Your task to perform on an android device: Go to network settings Image 0: 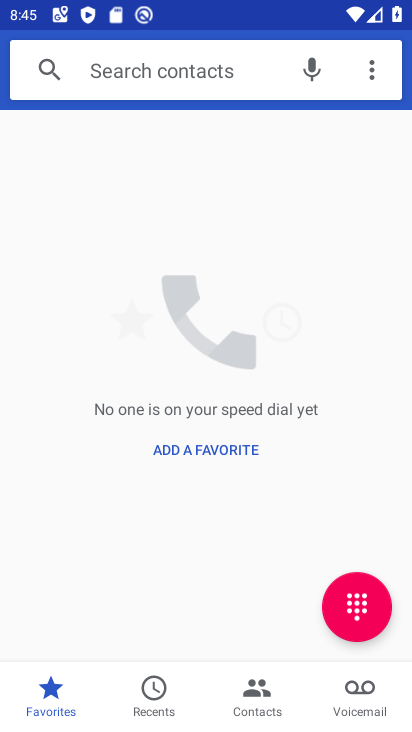
Step 0: press home button
Your task to perform on an android device: Go to network settings Image 1: 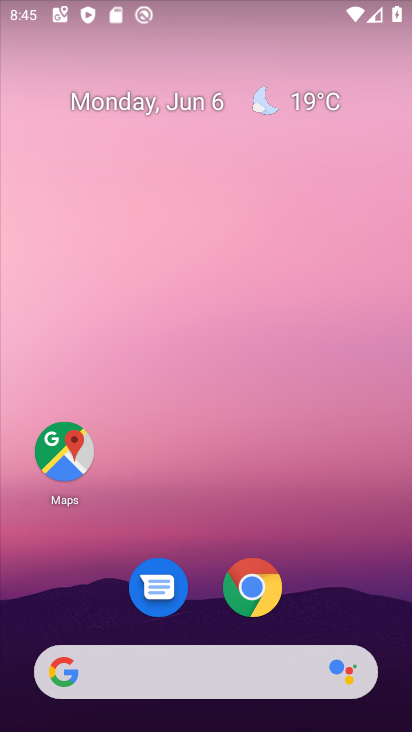
Step 1: drag from (65, 666) to (230, 201)
Your task to perform on an android device: Go to network settings Image 2: 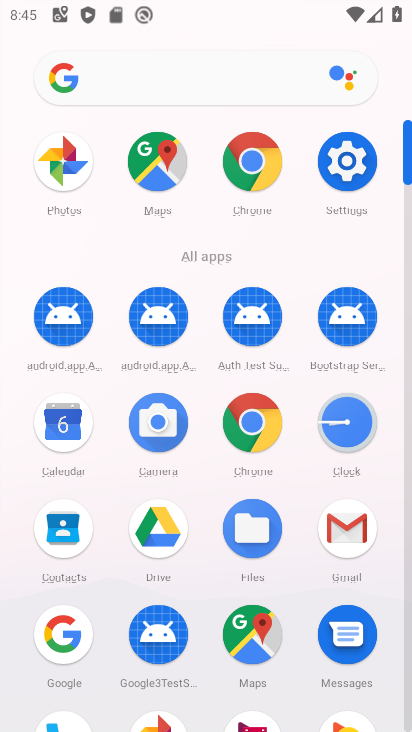
Step 2: drag from (174, 644) to (267, 343)
Your task to perform on an android device: Go to network settings Image 3: 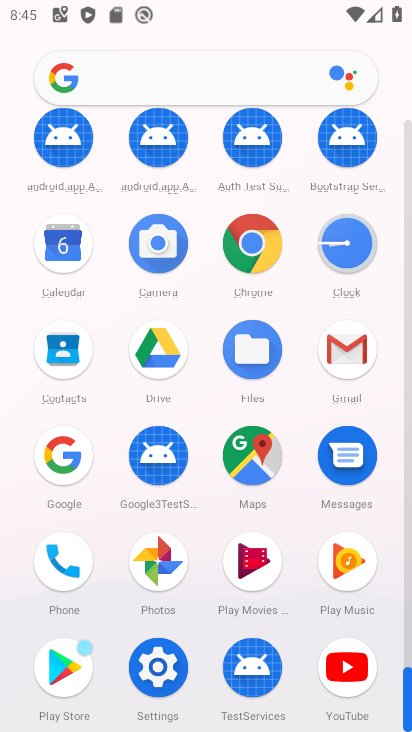
Step 3: click (151, 671)
Your task to perform on an android device: Go to network settings Image 4: 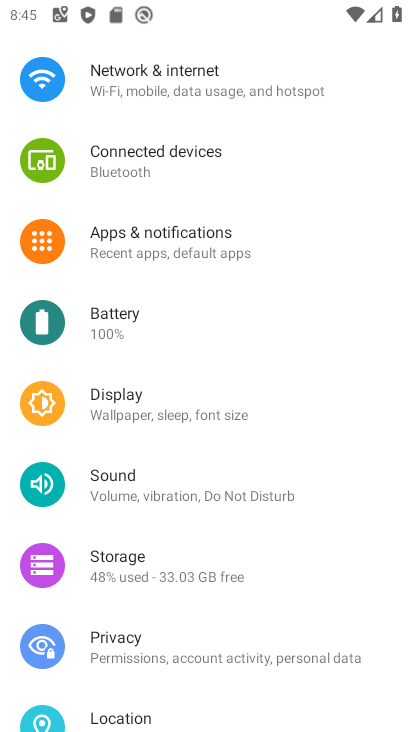
Step 4: click (211, 94)
Your task to perform on an android device: Go to network settings Image 5: 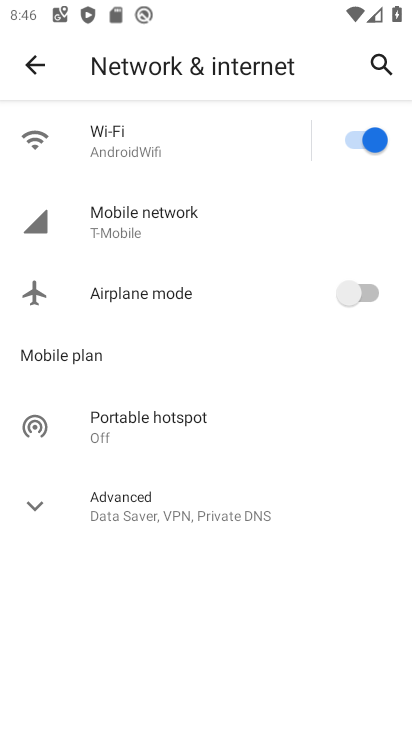
Step 5: click (180, 217)
Your task to perform on an android device: Go to network settings Image 6: 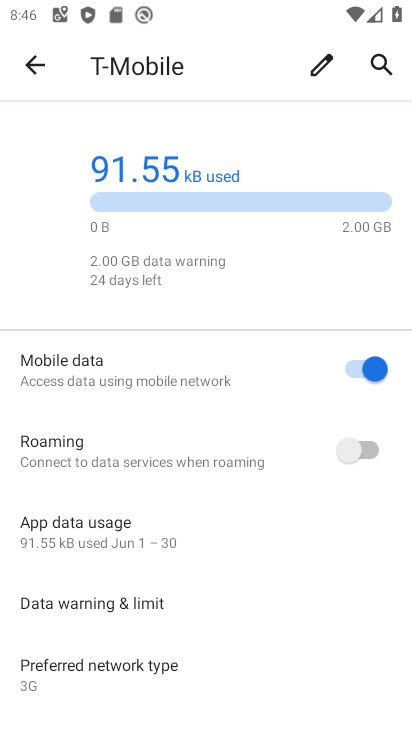
Step 6: task complete